Your task to perform on an android device: Open maps Image 0: 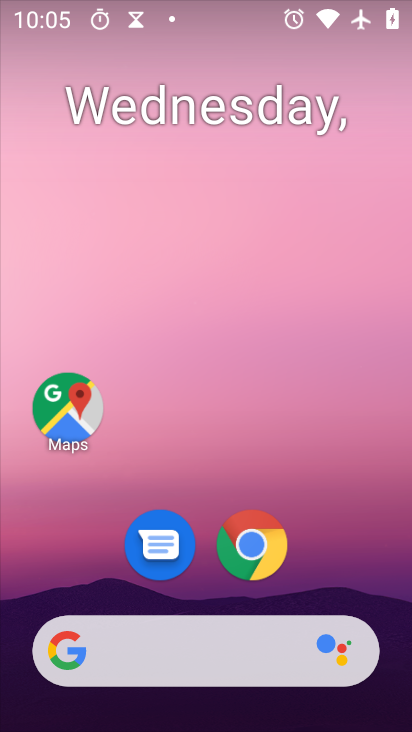
Step 0: press home button
Your task to perform on an android device: Open maps Image 1: 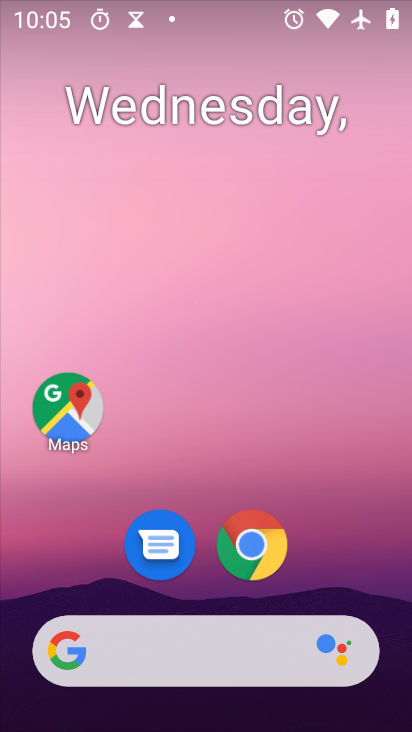
Step 1: click (63, 418)
Your task to perform on an android device: Open maps Image 2: 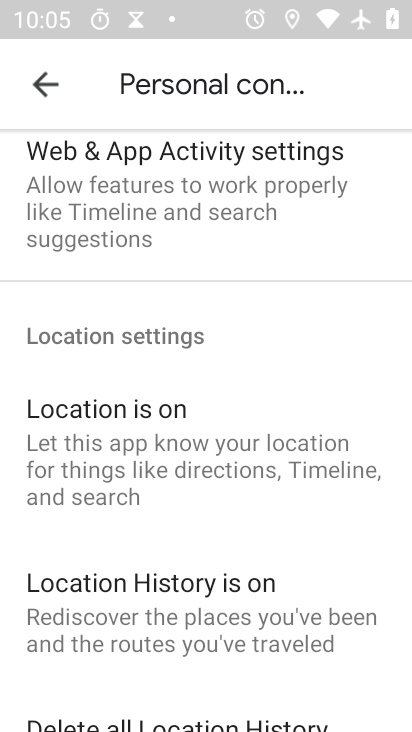
Step 2: click (45, 82)
Your task to perform on an android device: Open maps Image 3: 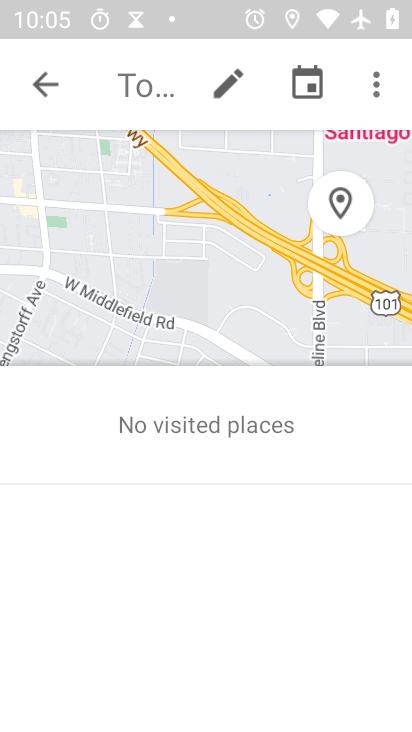
Step 3: click (38, 88)
Your task to perform on an android device: Open maps Image 4: 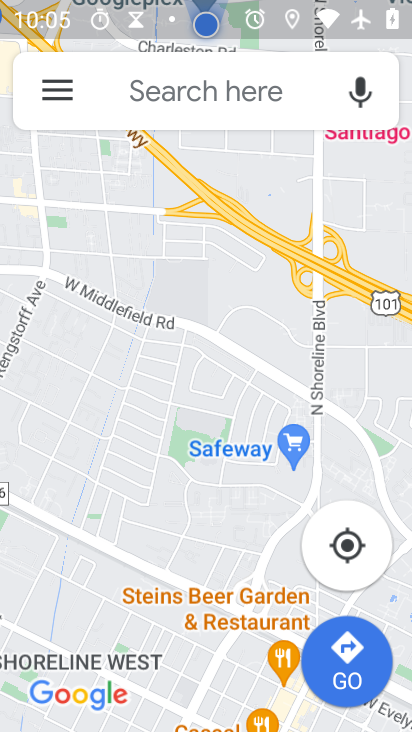
Step 4: task complete